Your task to perform on an android device: toggle show notifications on the lock screen Image 0: 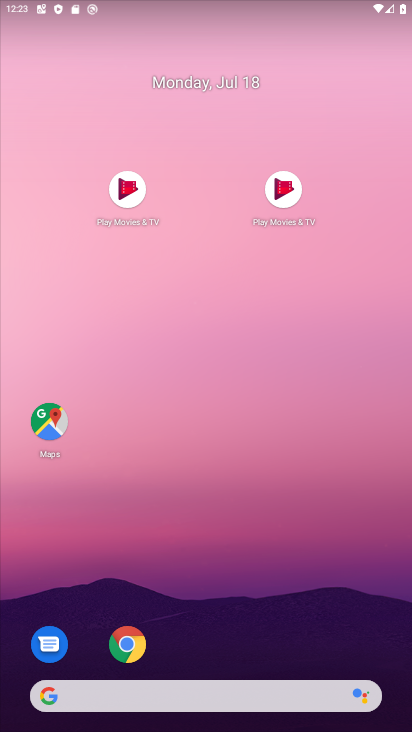
Step 0: drag from (282, 660) to (163, 92)
Your task to perform on an android device: toggle show notifications on the lock screen Image 1: 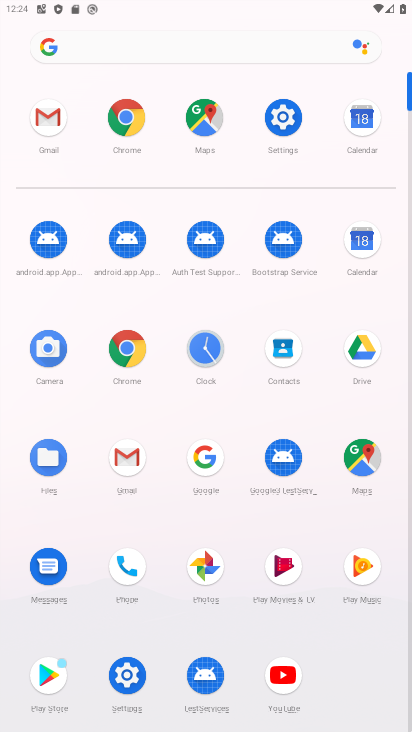
Step 1: click (280, 111)
Your task to perform on an android device: toggle show notifications on the lock screen Image 2: 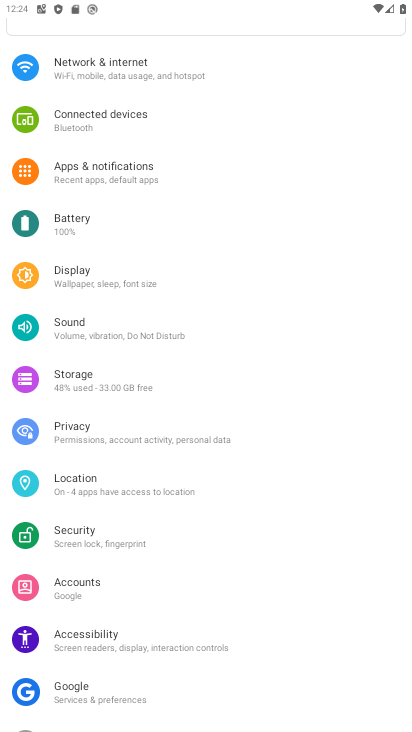
Step 2: click (117, 173)
Your task to perform on an android device: toggle show notifications on the lock screen Image 3: 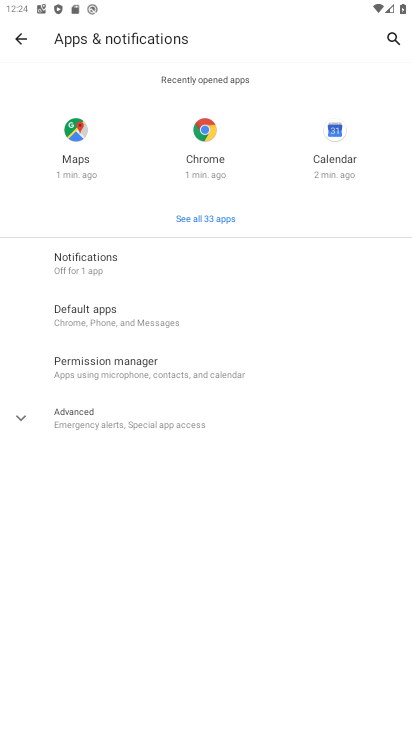
Step 3: click (110, 259)
Your task to perform on an android device: toggle show notifications on the lock screen Image 4: 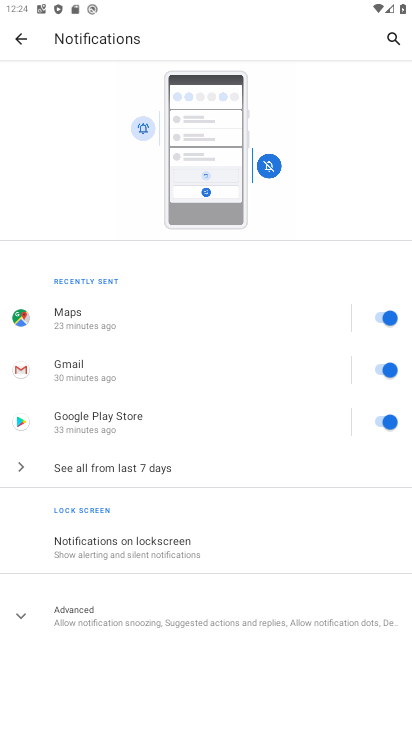
Step 4: click (166, 560)
Your task to perform on an android device: toggle show notifications on the lock screen Image 5: 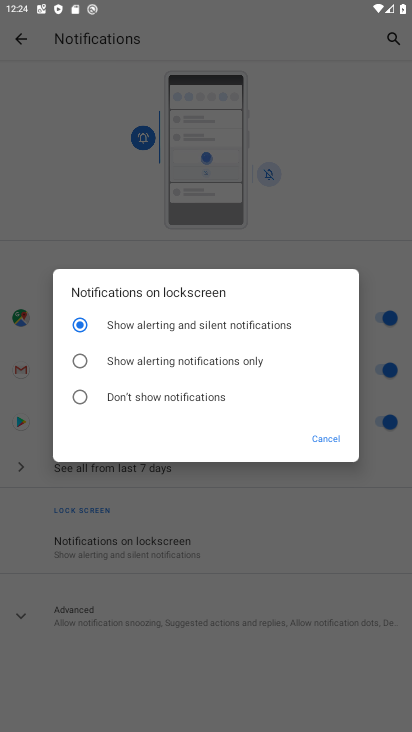
Step 5: click (150, 365)
Your task to perform on an android device: toggle show notifications on the lock screen Image 6: 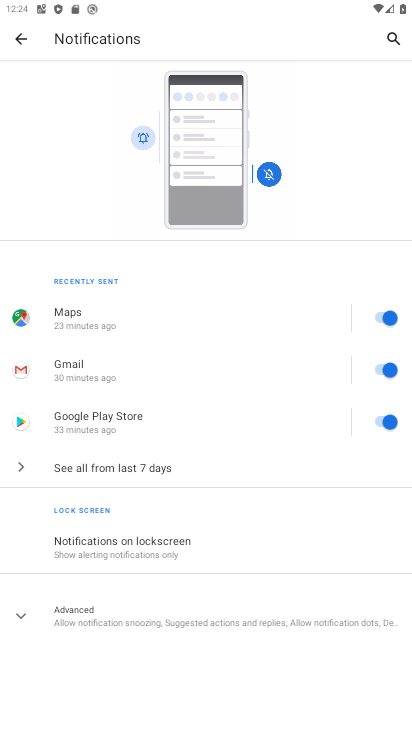
Step 6: task complete